Your task to perform on an android device: check the backup settings in the google photos Image 0: 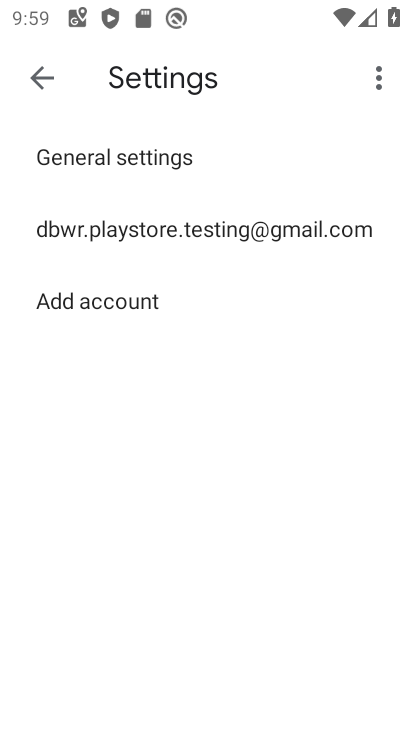
Step 0: press home button
Your task to perform on an android device: check the backup settings in the google photos Image 1: 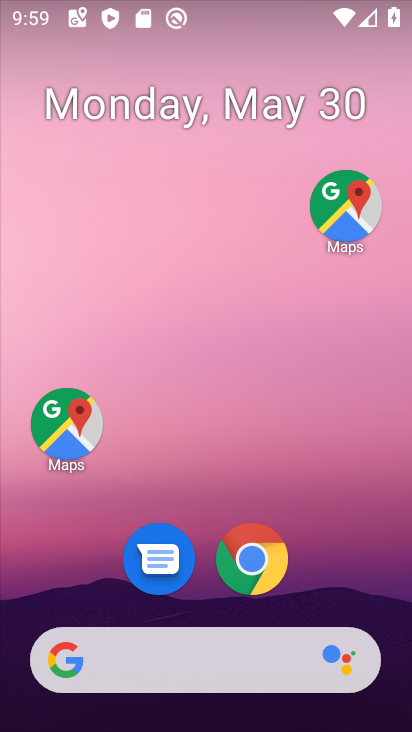
Step 1: drag from (337, 559) to (276, 116)
Your task to perform on an android device: check the backup settings in the google photos Image 2: 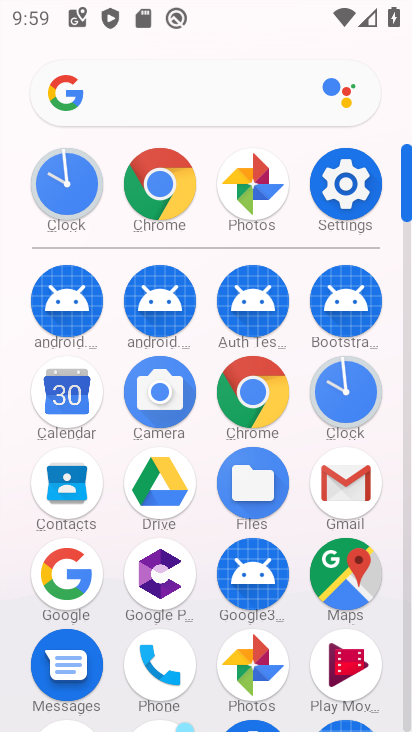
Step 2: click (268, 184)
Your task to perform on an android device: check the backup settings in the google photos Image 3: 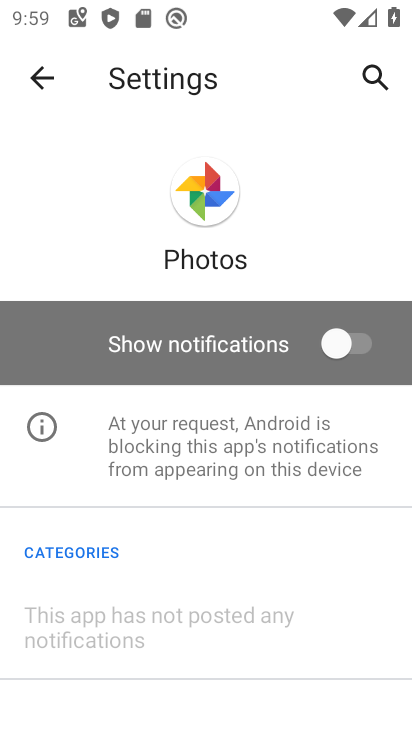
Step 3: click (47, 73)
Your task to perform on an android device: check the backup settings in the google photos Image 4: 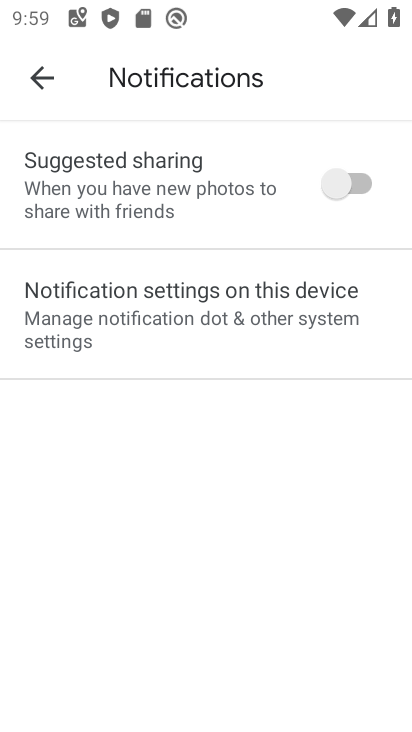
Step 4: click (48, 89)
Your task to perform on an android device: check the backup settings in the google photos Image 5: 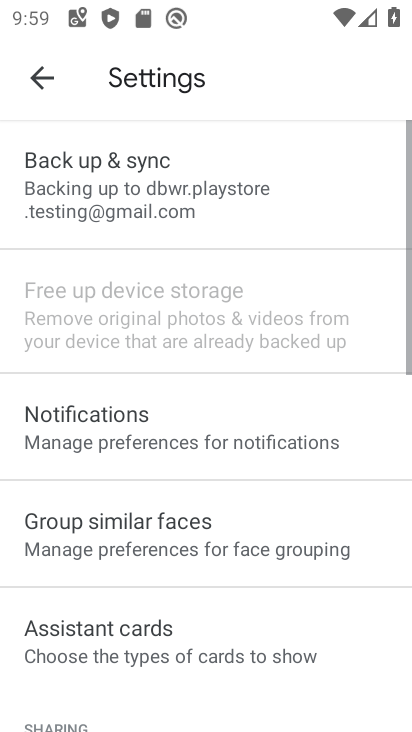
Step 5: click (120, 185)
Your task to perform on an android device: check the backup settings in the google photos Image 6: 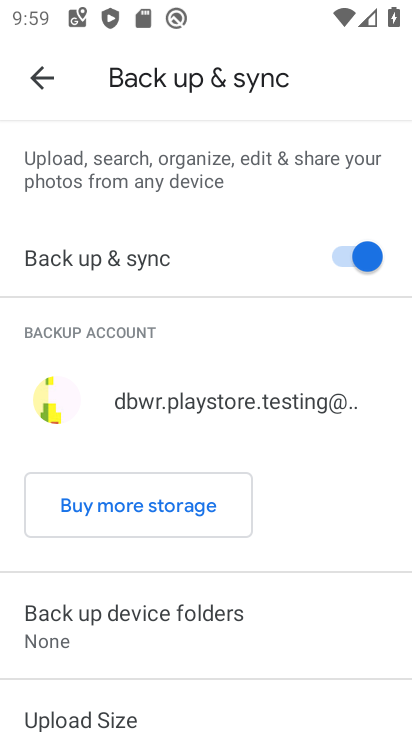
Step 6: task complete